Your task to perform on an android device: change the clock display to analog Image 0: 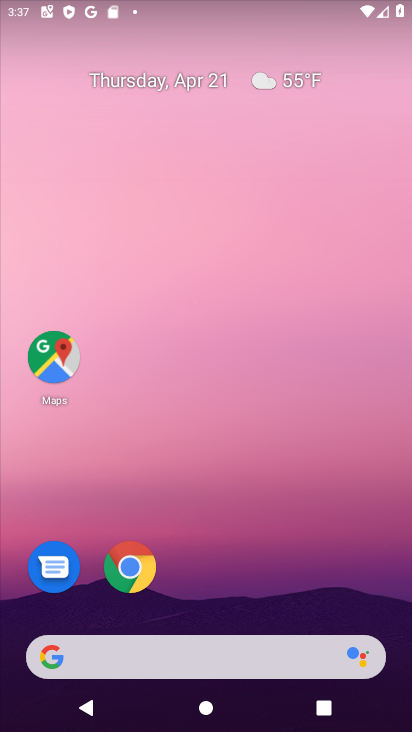
Step 0: drag from (207, 581) to (198, 76)
Your task to perform on an android device: change the clock display to analog Image 1: 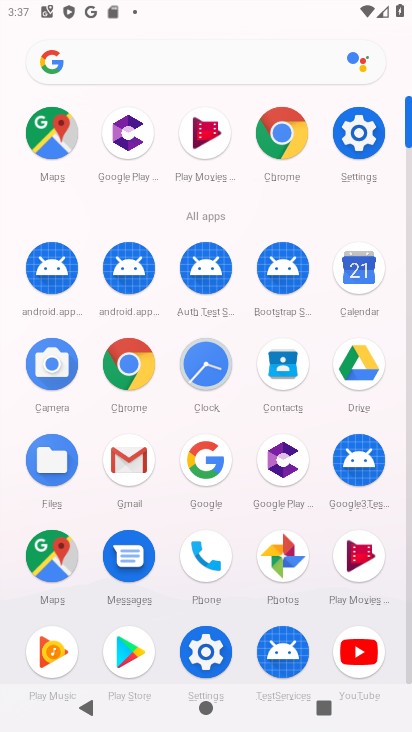
Step 1: click (200, 359)
Your task to perform on an android device: change the clock display to analog Image 2: 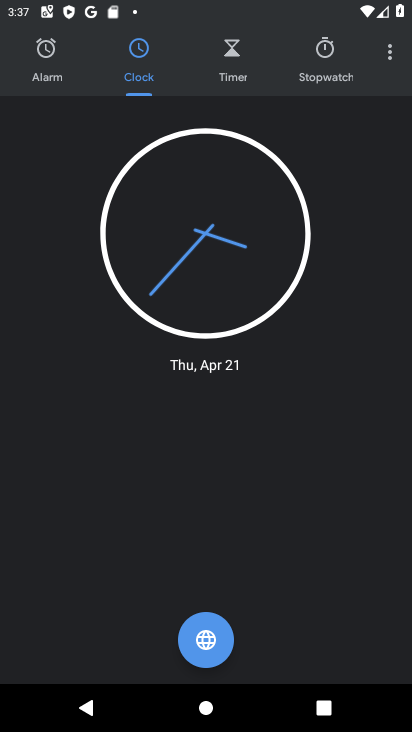
Step 2: click (384, 48)
Your task to perform on an android device: change the clock display to analog Image 3: 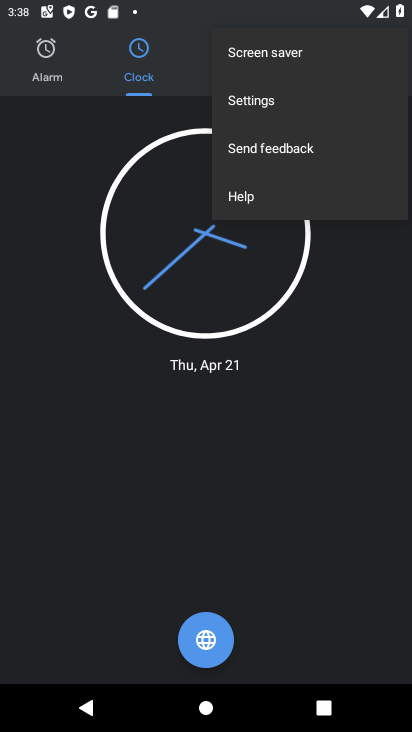
Step 3: click (267, 104)
Your task to perform on an android device: change the clock display to analog Image 4: 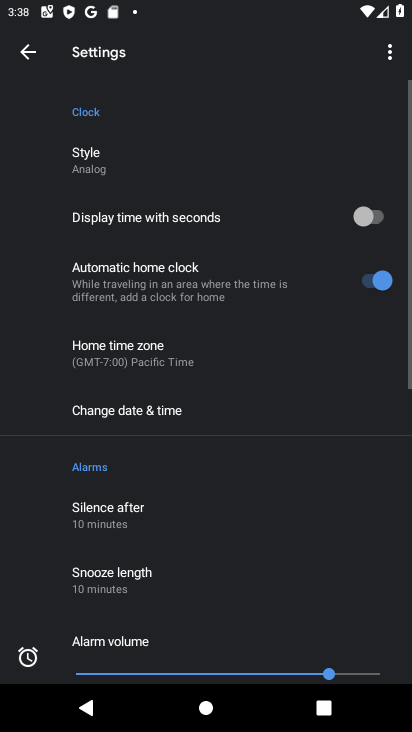
Step 4: click (144, 181)
Your task to perform on an android device: change the clock display to analog Image 5: 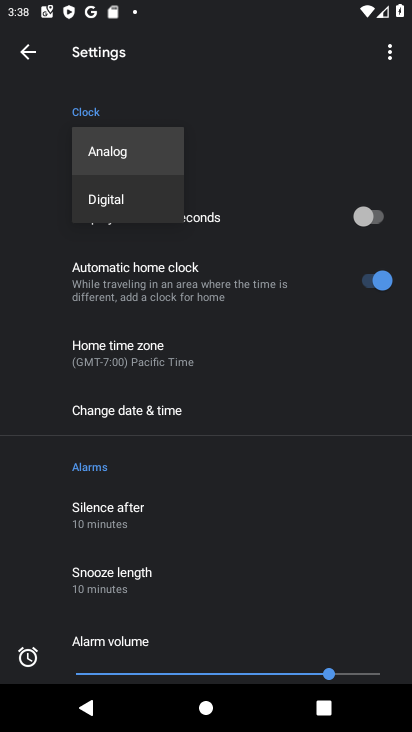
Step 5: click (139, 154)
Your task to perform on an android device: change the clock display to analog Image 6: 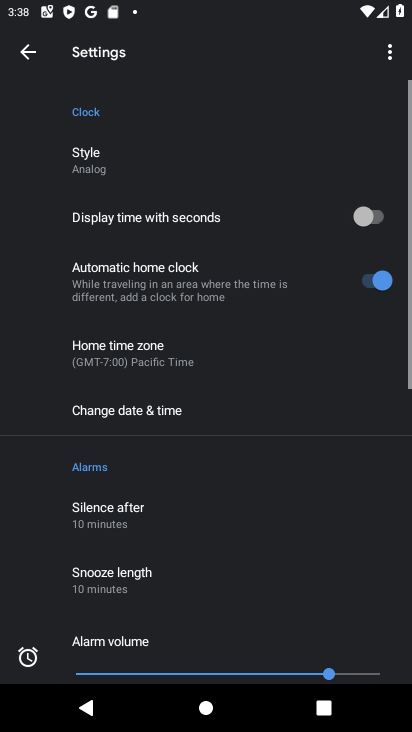
Step 6: task complete